Your task to perform on an android device: turn on wifi Image 0: 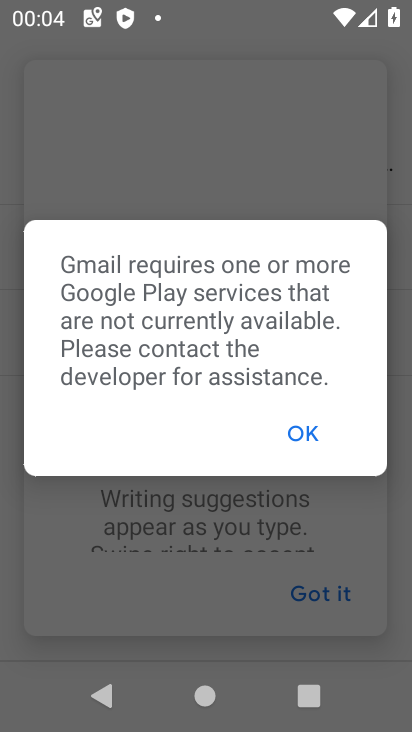
Step 0: drag from (248, 4) to (182, 477)
Your task to perform on an android device: turn on wifi Image 1: 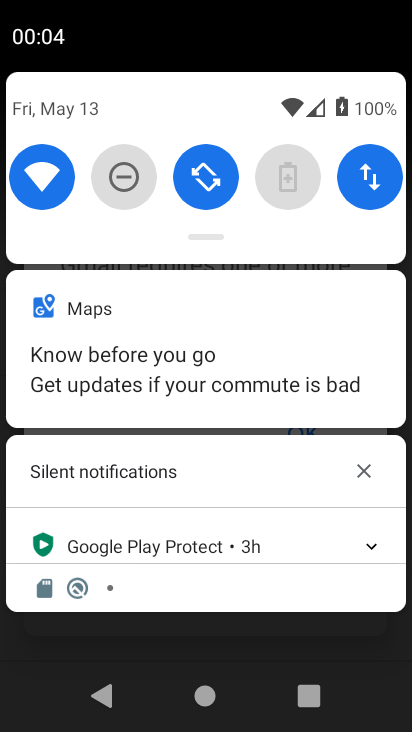
Step 1: task complete